Your task to perform on an android device: set the timer Image 0: 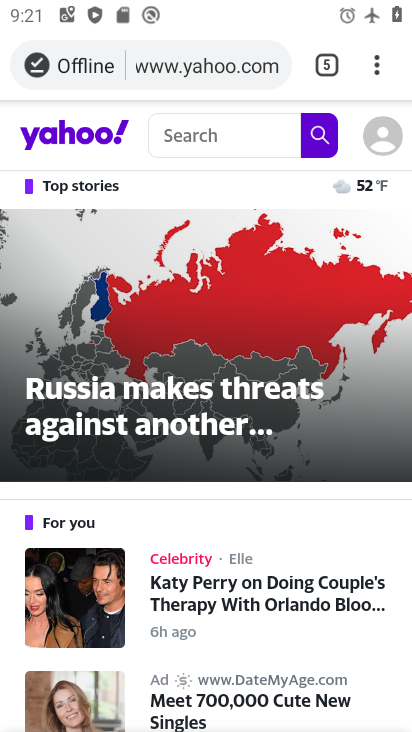
Step 0: press home button
Your task to perform on an android device: set the timer Image 1: 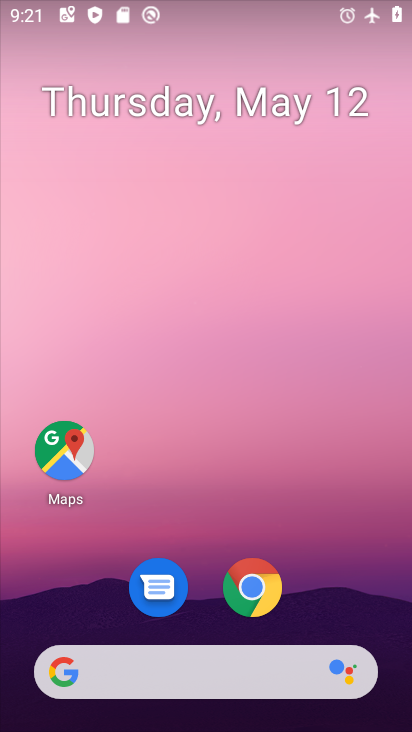
Step 1: drag from (310, 592) to (352, 47)
Your task to perform on an android device: set the timer Image 2: 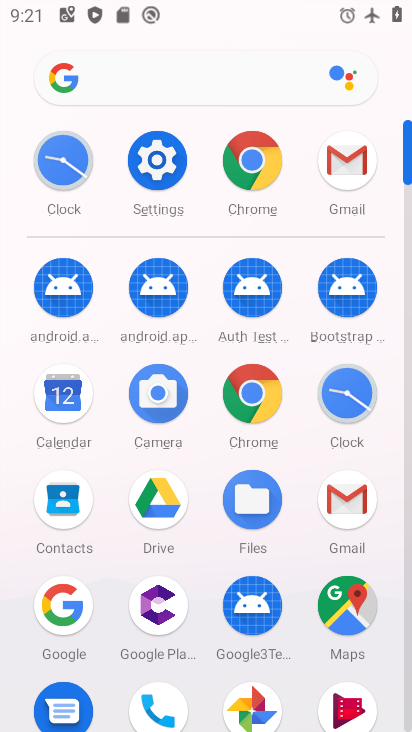
Step 2: click (333, 395)
Your task to perform on an android device: set the timer Image 3: 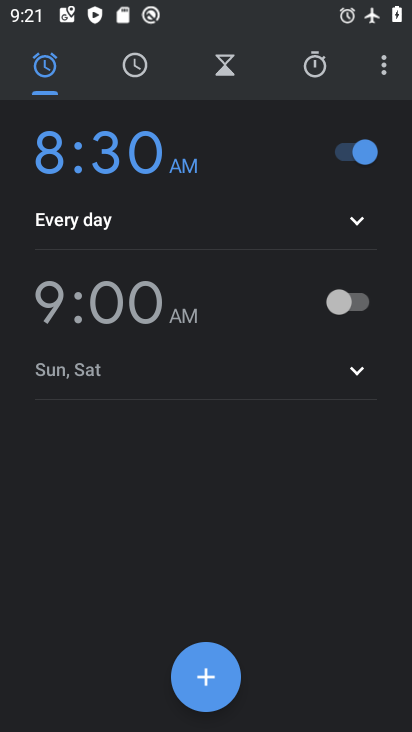
Step 3: click (365, 59)
Your task to perform on an android device: set the timer Image 4: 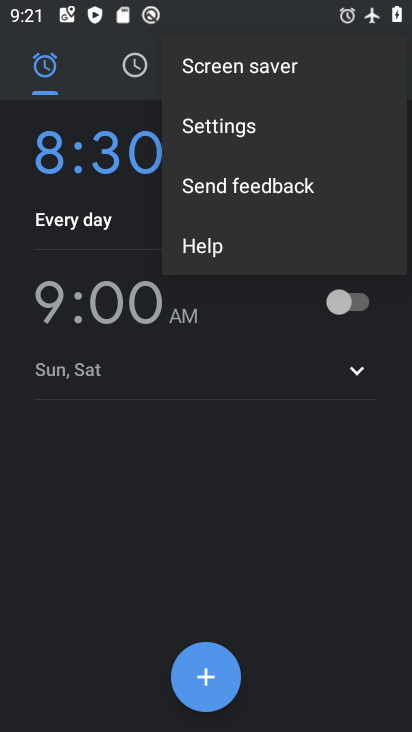
Step 4: drag from (299, 61) to (64, 192)
Your task to perform on an android device: set the timer Image 5: 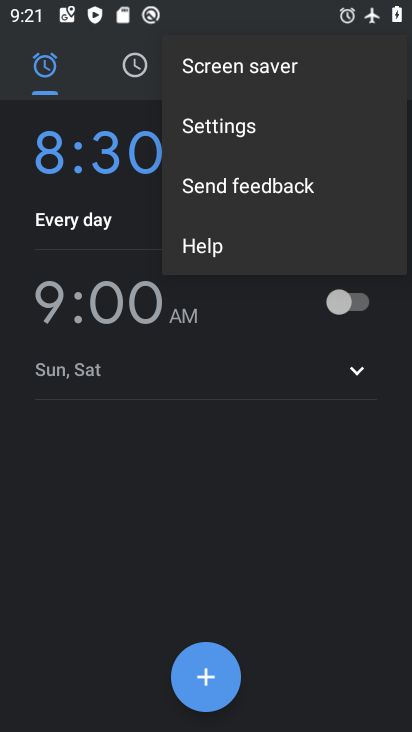
Step 5: press back button
Your task to perform on an android device: set the timer Image 6: 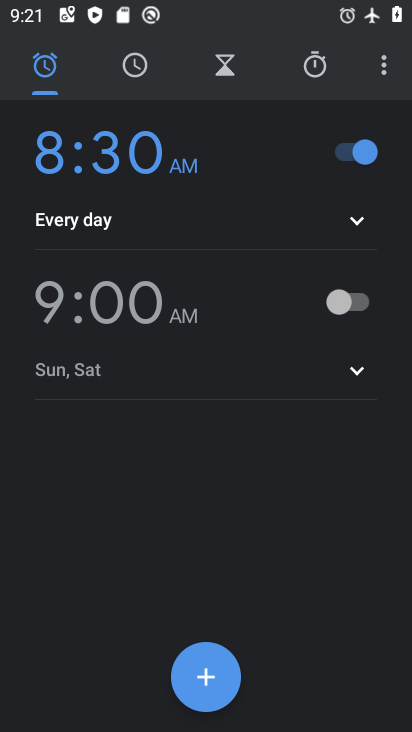
Step 6: click (329, 64)
Your task to perform on an android device: set the timer Image 7: 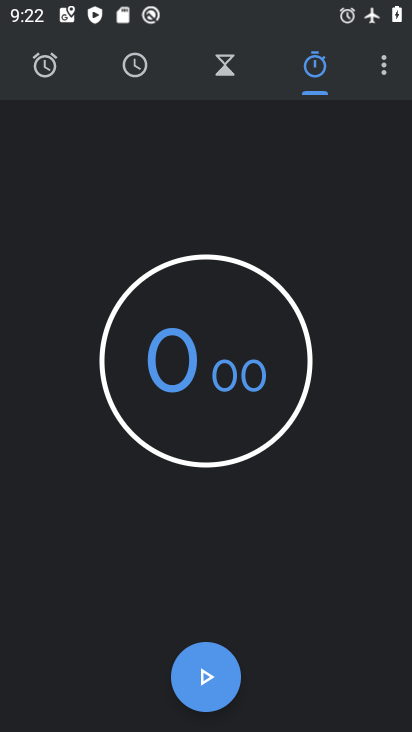
Step 7: task complete